Your task to perform on an android device: turn on improve location accuracy Image 0: 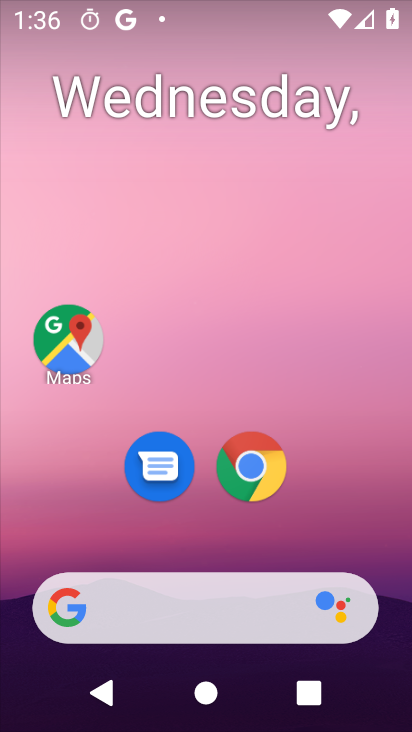
Step 0: drag from (381, 563) to (367, 388)
Your task to perform on an android device: turn on improve location accuracy Image 1: 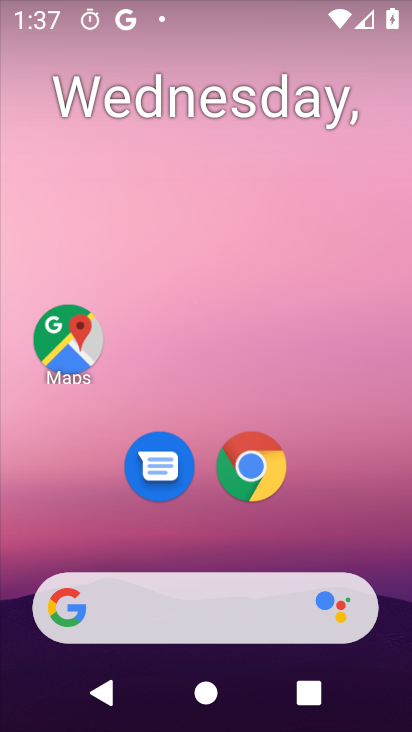
Step 1: drag from (295, 517) to (234, 64)
Your task to perform on an android device: turn on improve location accuracy Image 2: 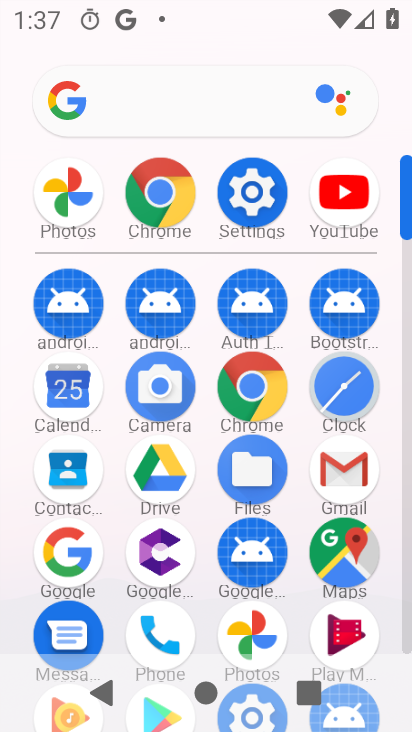
Step 2: click (256, 193)
Your task to perform on an android device: turn on improve location accuracy Image 3: 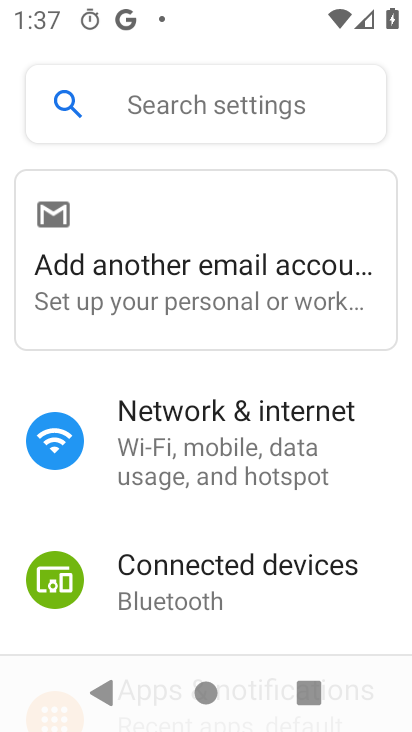
Step 3: drag from (299, 579) to (288, 260)
Your task to perform on an android device: turn on improve location accuracy Image 4: 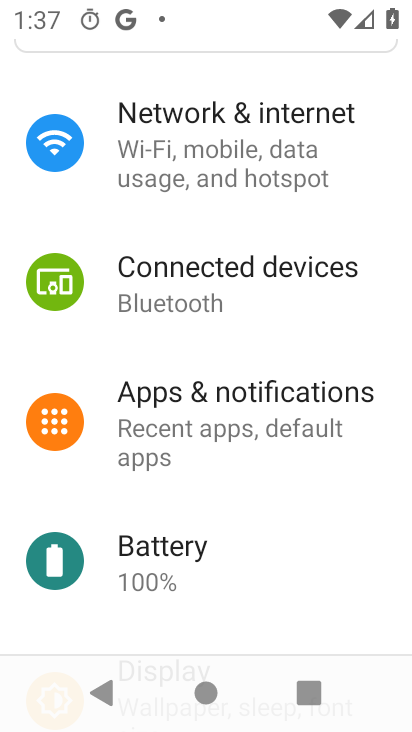
Step 4: drag from (299, 493) to (243, 173)
Your task to perform on an android device: turn on improve location accuracy Image 5: 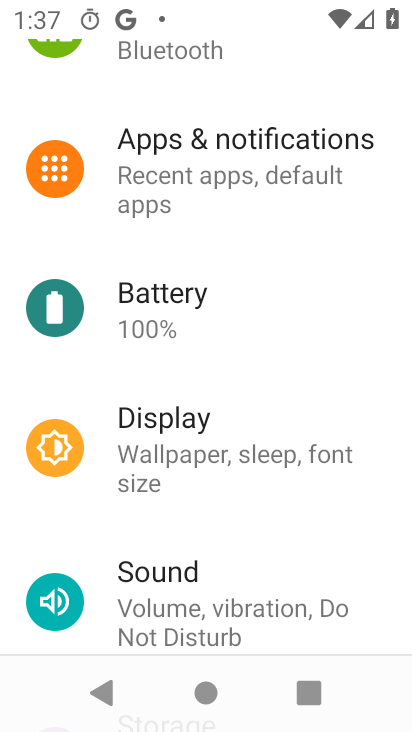
Step 5: drag from (257, 517) to (238, 236)
Your task to perform on an android device: turn on improve location accuracy Image 6: 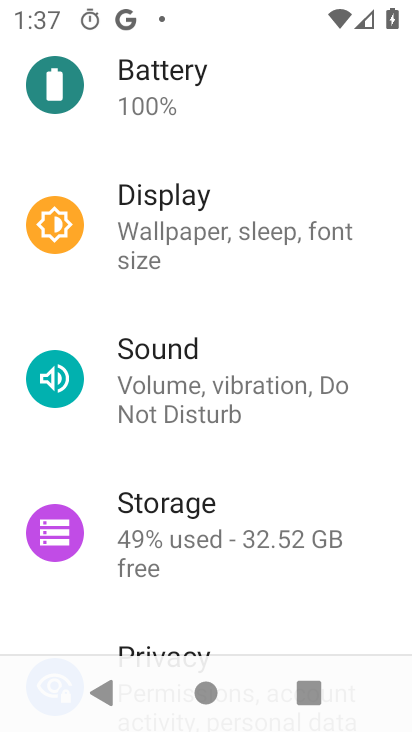
Step 6: drag from (260, 532) to (210, 269)
Your task to perform on an android device: turn on improve location accuracy Image 7: 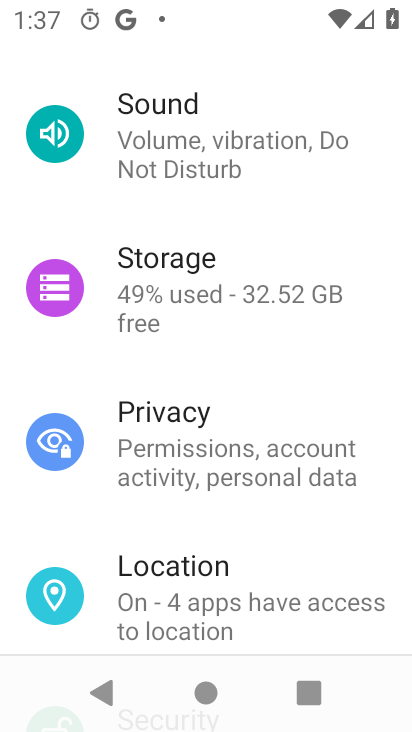
Step 7: click (270, 586)
Your task to perform on an android device: turn on improve location accuracy Image 8: 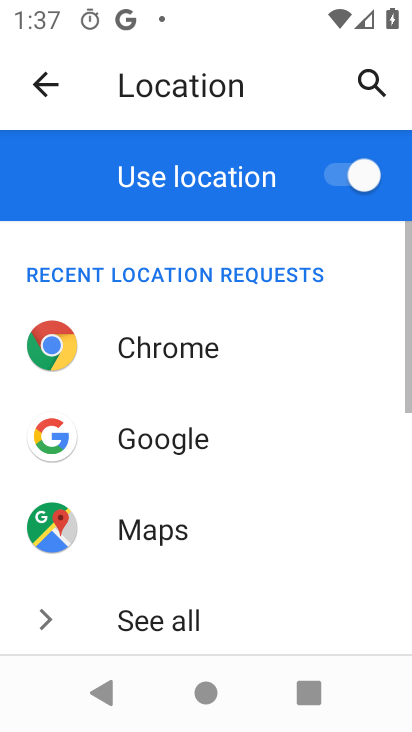
Step 8: drag from (269, 566) to (269, 284)
Your task to perform on an android device: turn on improve location accuracy Image 9: 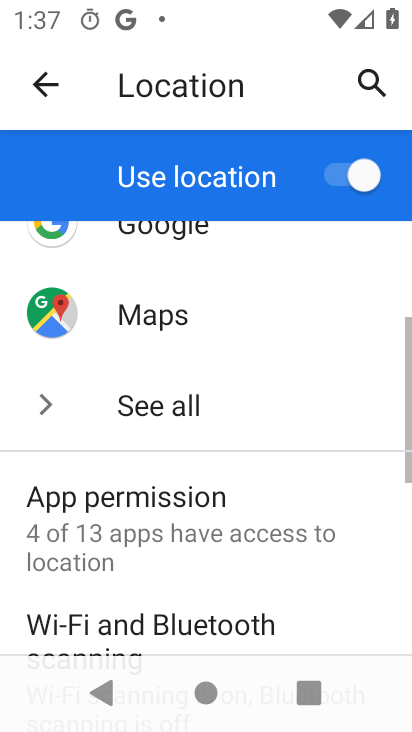
Step 9: drag from (238, 538) to (222, 233)
Your task to perform on an android device: turn on improve location accuracy Image 10: 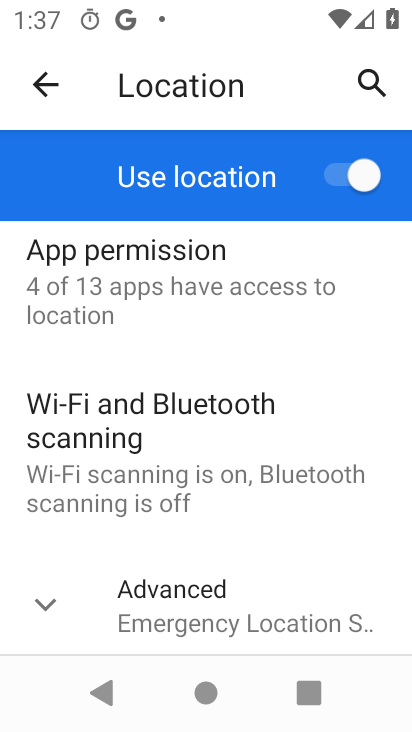
Step 10: click (225, 591)
Your task to perform on an android device: turn on improve location accuracy Image 11: 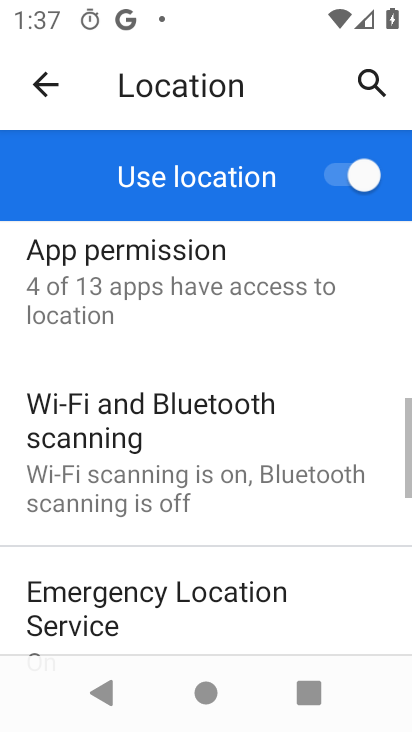
Step 11: task complete